Your task to perform on an android device: turn on improve location accuracy Image 0: 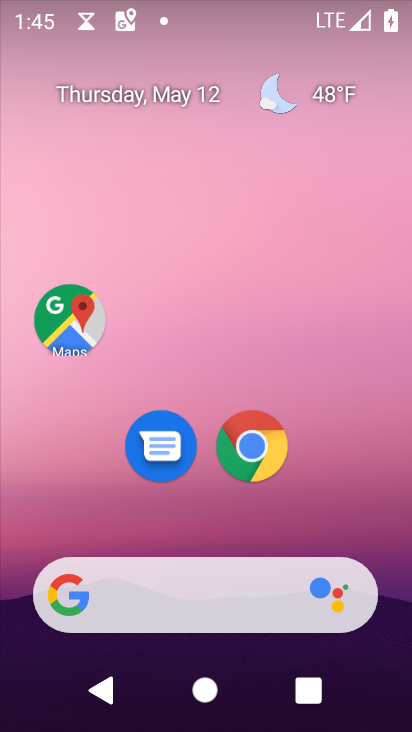
Step 0: drag from (322, 523) to (320, 31)
Your task to perform on an android device: turn on improve location accuracy Image 1: 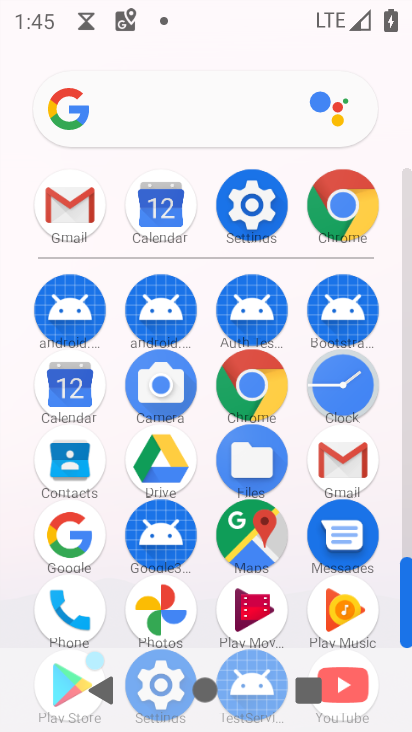
Step 1: click (246, 204)
Your task to perform on an android device: turn on improve location accuracy Image 2: 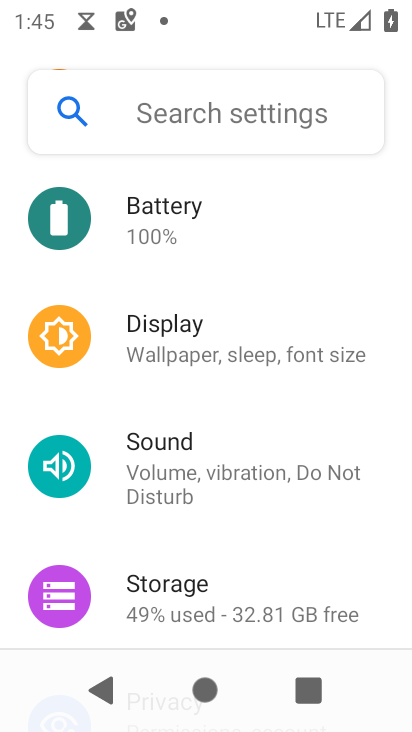
Step 2: drag from (279, 569) to (268, 224)
Your task to perform on an android device: turn on improve location accuracy Image 3: 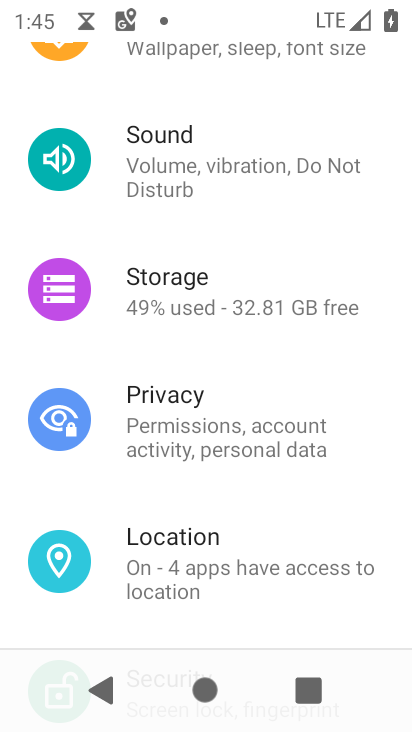
Step 3: click (250, 564)
Your task to perform on an android device: turn on improve location accuracy Image 4: 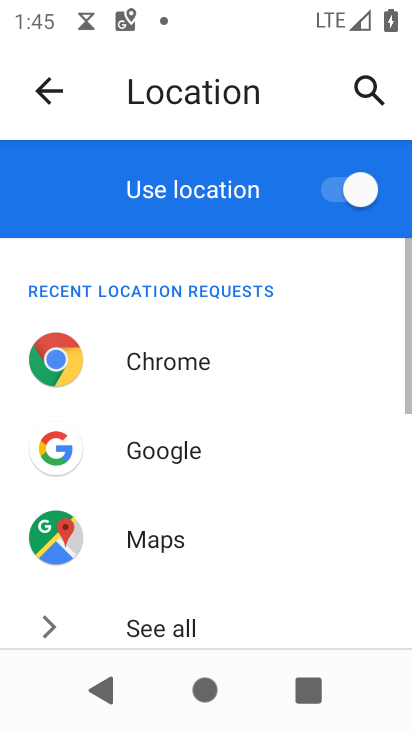
Step 4: drag from (283, 527) to (281, 155)
Your task to perform on an android device: turn on improve location accuracy Image 5: 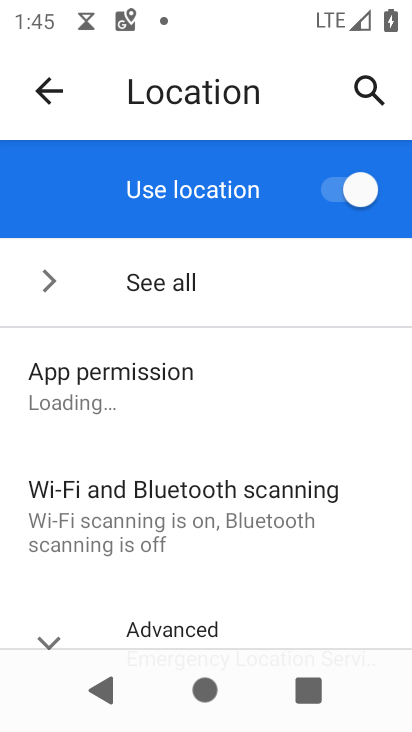
Step 5: drag from (233, 582) to (255, 301)
Your task to perform on an android device: turn on improve location accuracy Image 6: 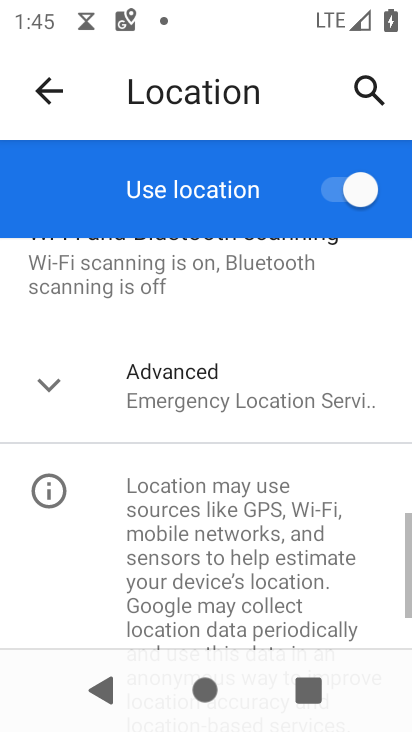
Step 6: click (234, 406)
Your task to perform on an android device: turn on improve location accuracy Image 7: 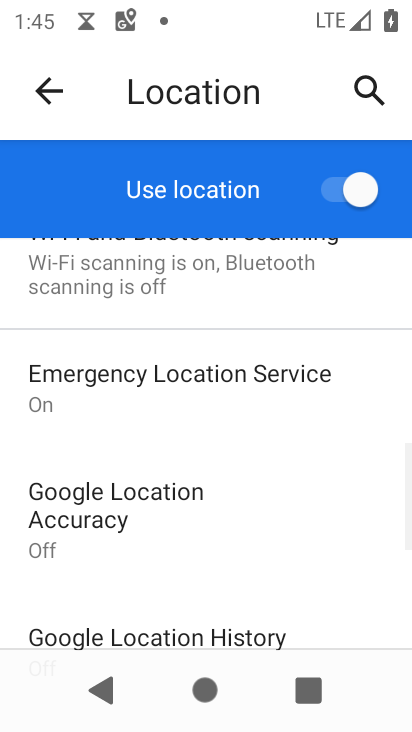
Step 7: drag from (219, 573) to (245, 410)
Your task to perform on an android device: turn on improve location accuracy Image 8: 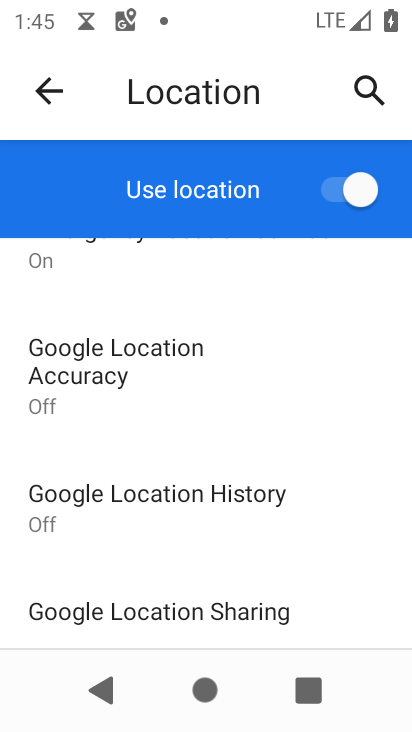
Step 8: drag from (314, 555) to (304, 432)
Your task to perform on an android device: turn on improve location accuracy Image 9: 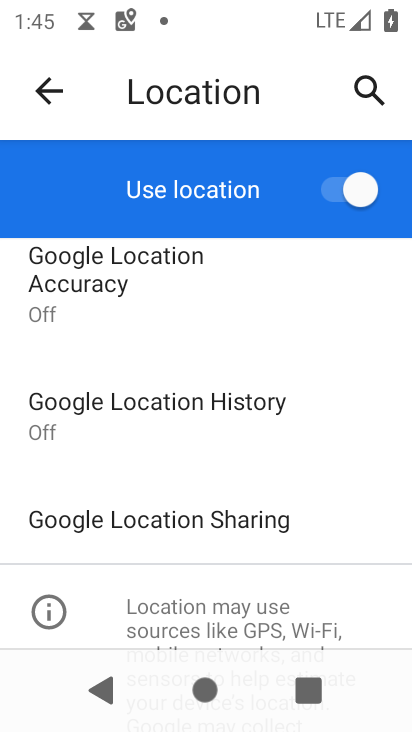
Step 9: click (93, 273)
Your task to perform on an android device: turn on improve location accuracy Image 10: 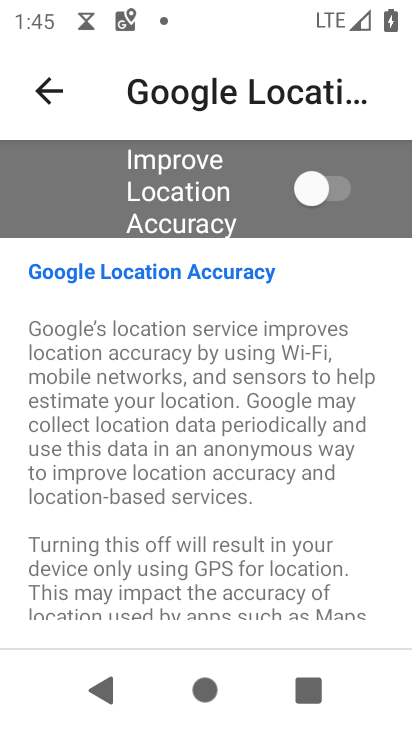
Step 10: click (340, 196)
Your task to perform on an android device: turn on improve location accuracy Image 11: 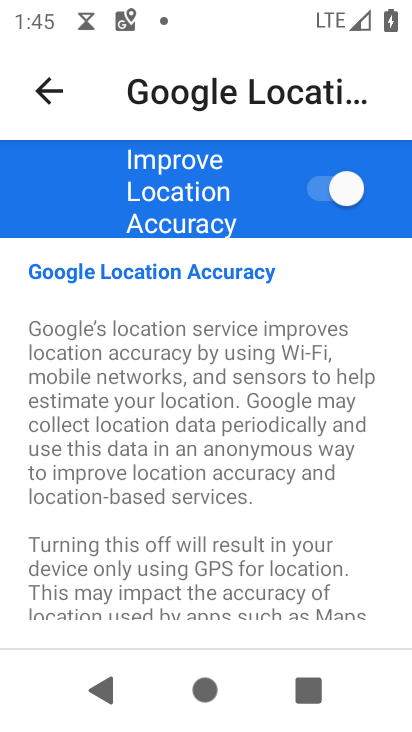
Step 11: task complete